Your task to perform on an android device: change keyboard looks Image 0: 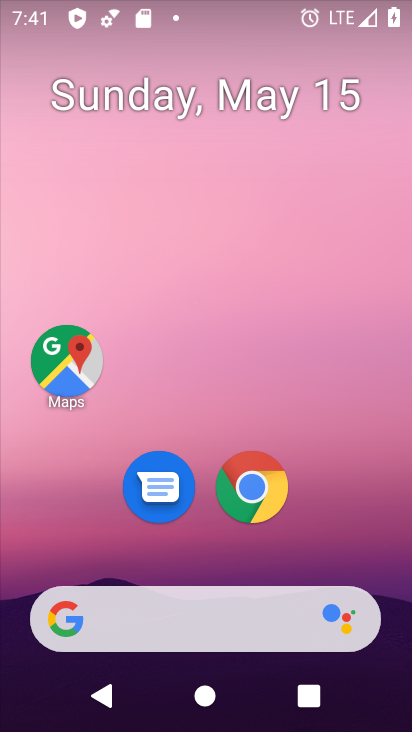
Step 0: drag from (325, 522) to (314, 118)
Your task to perform on an android device: change keyboard looks Image 1: 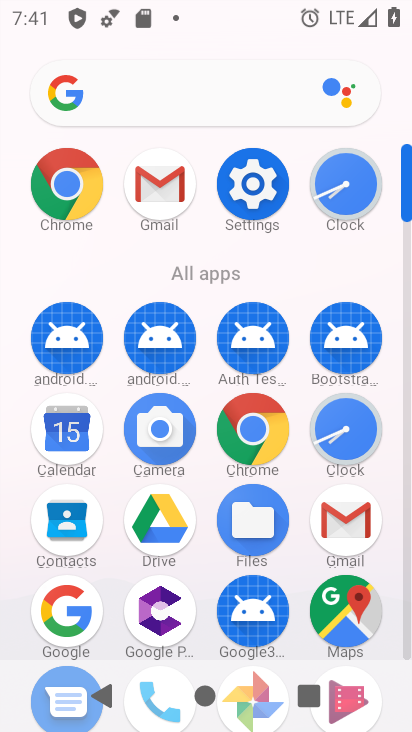
Step 1: click (284, 178)
Your task to perform on an android device: change keyboard looks Image 2: 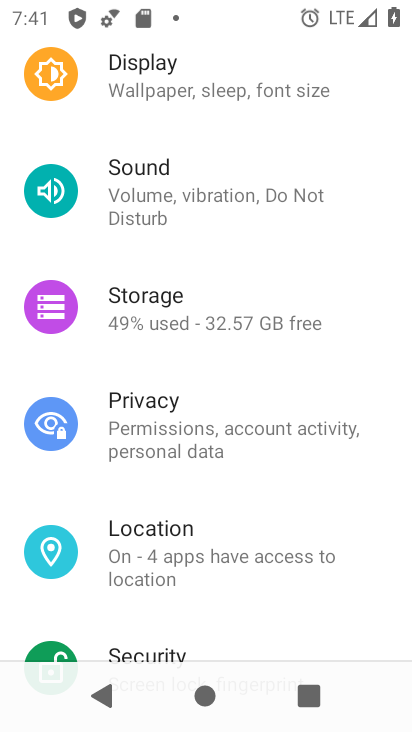
Step 2: drag from (309, 624) to (328, 247)
Your task to perform on an android device: change keyboard looks Image 3: 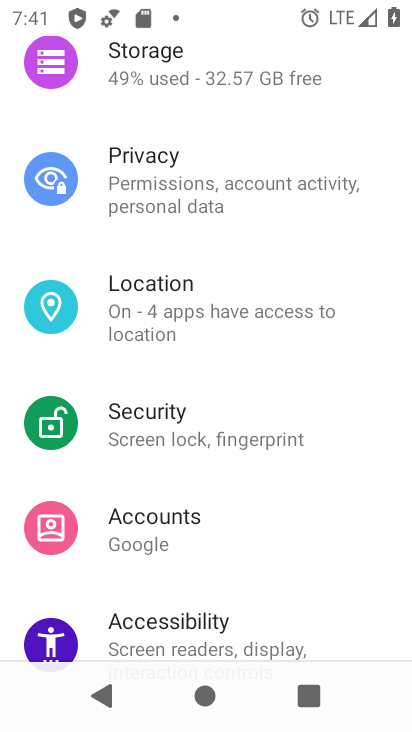
Step 3: drag from (316, 534) to (308, 170)
Your task to perform on an android device: change keyboard looks Image 4: 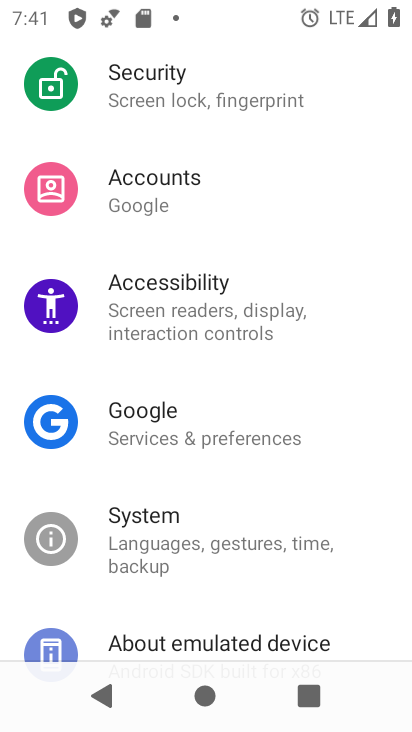
Step 4: drag from (313, 592) to (303, 194)
Your task to perform on an android device: change keyboard looks Image 5: 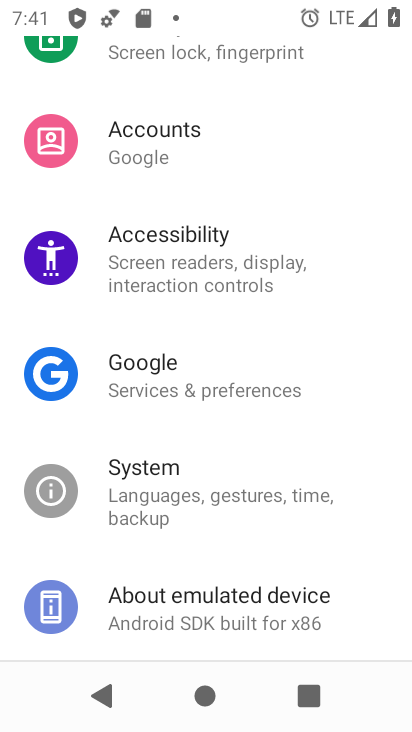
Step 5: drag from (287, 518) to (284, 134)
Your task to perform on an android device: change keyboard looks Image 6: 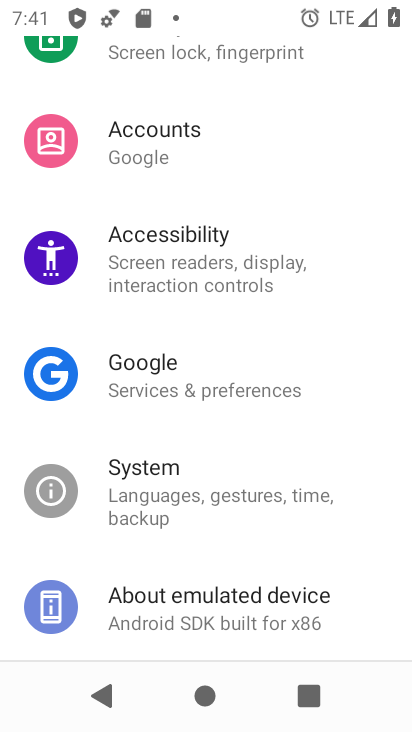
Step 6: click (254, 497)
Your task to perform on an android device: change keyboard looks Image 7: 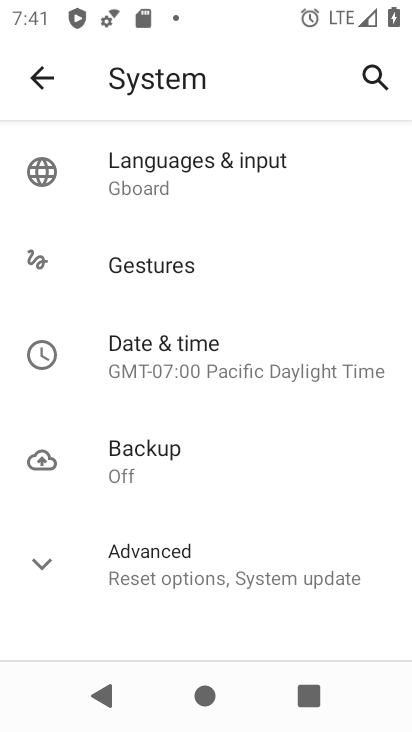
Step 7: click (216, 177)
Your task to perform on an android device: change keyboard looks Image 8: 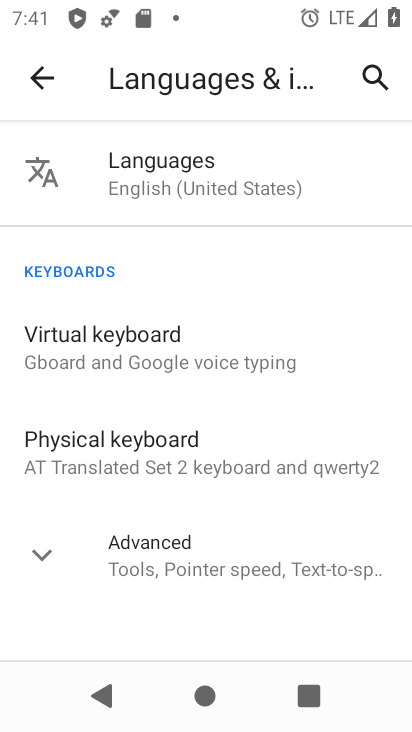
Step 8: click (139, 349)
Your task to perform on an android device: change keyboard looks Image 9: 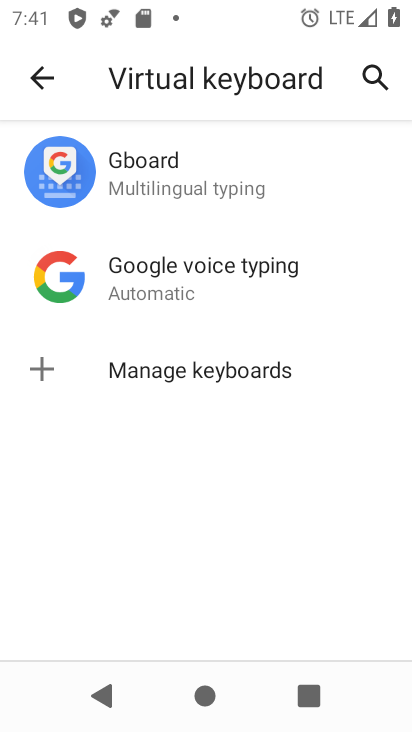
Step 9: click (177, 197)
Your task to perform on an android device: change keyboard looks Image 10: 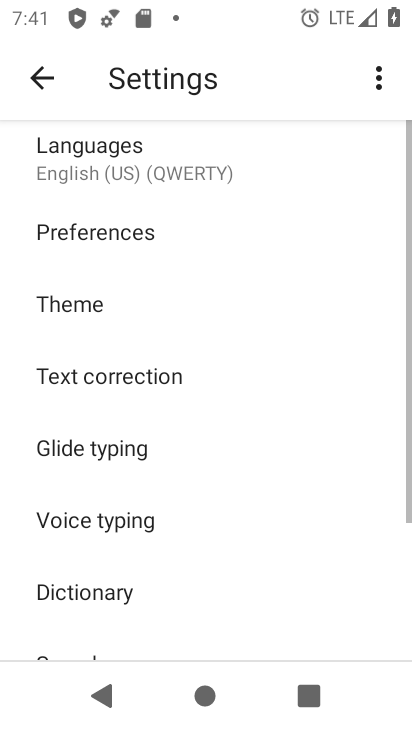
Step 10: click (177, 306)
Your task to perform on an android device: change keyboard looks Image 11: 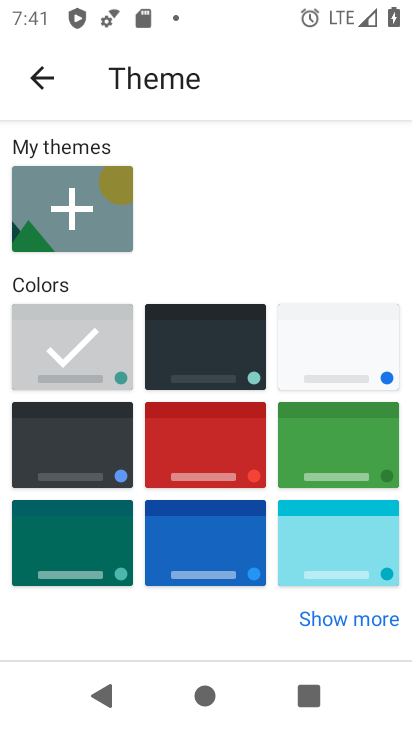
Step 11: click (346, 478)
Your task to perform on an android device: change keyboard looks Image 12: 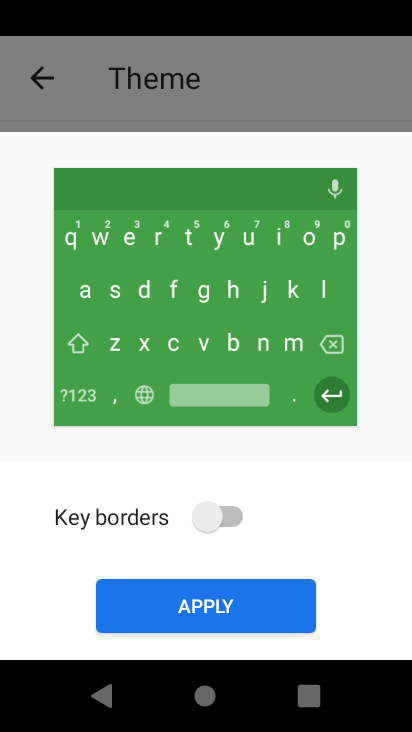
Step 12: click (185, 609)
Your task to perform on an android device: change keyboard looks Image 13: 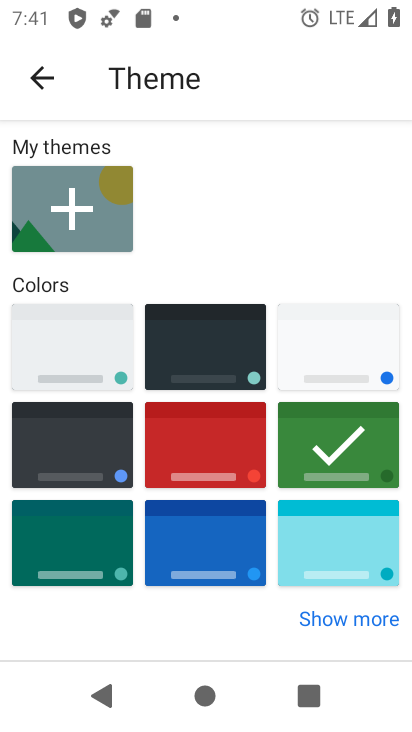
Step 13: task complete